Your task to perform on an android device: open wifi settings Image 0: 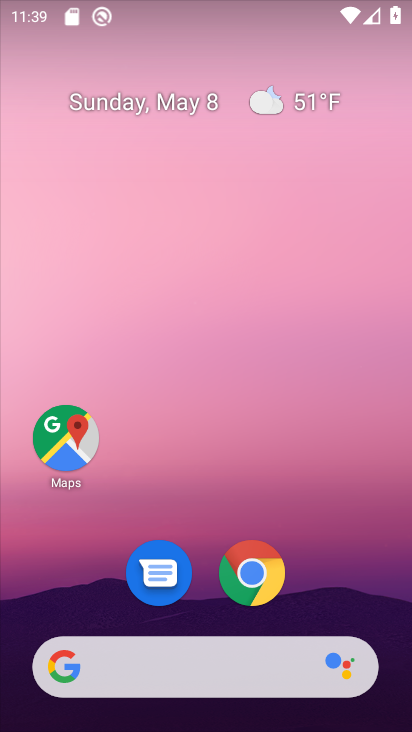
Step 0: drag from (183, 640) to (121, 156)
Your task to perform on an android device: open wifi settings Image 1: 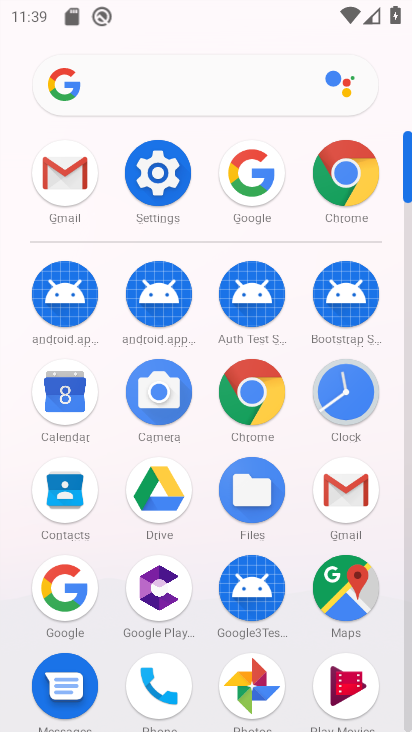
Step 1: click (152, 179)
Your task to perform on an android device: open wifi settings Image 2: 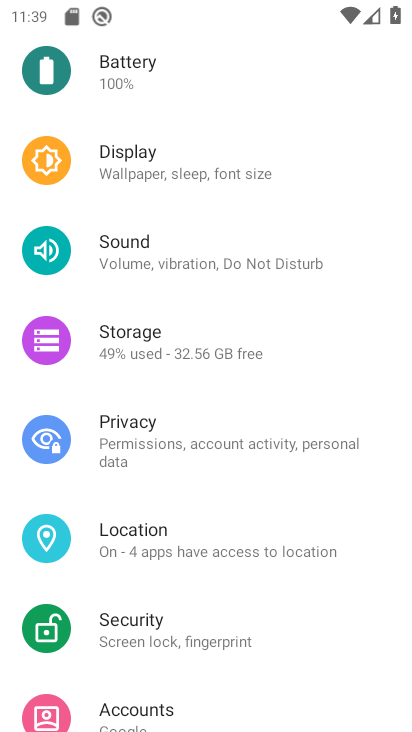
Step 2: drag from (134, 97) to (174, 521)
Your task to perform on an android device: open wifi settings Image 3: 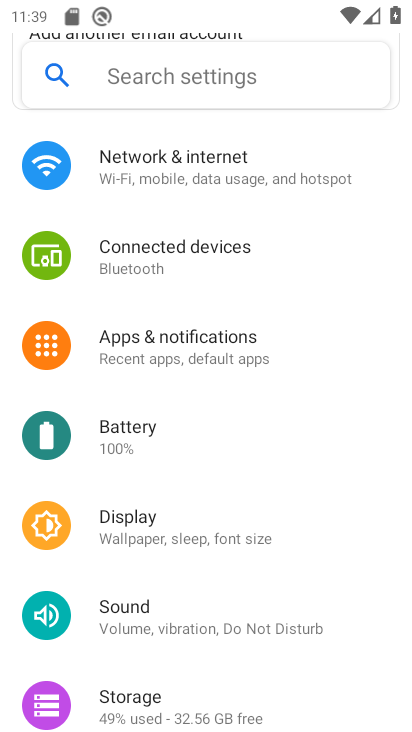
Step 3: click (161, 173)
Your task to perform on an android device: open wifi settings Image 4: 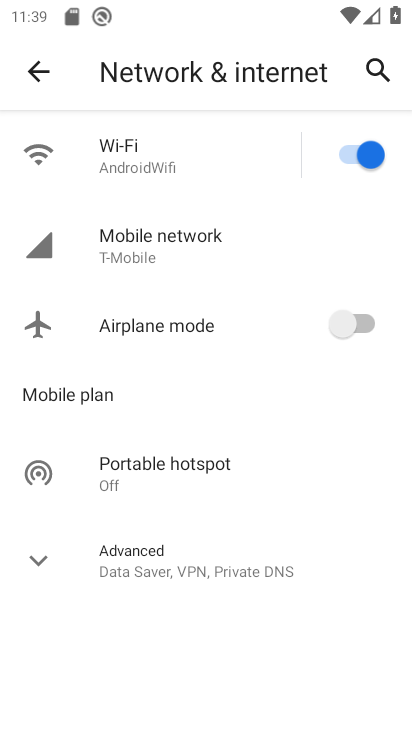
Step 4: click (143, 160)
Your task to perform on an android device: open wifi settings Image 5: 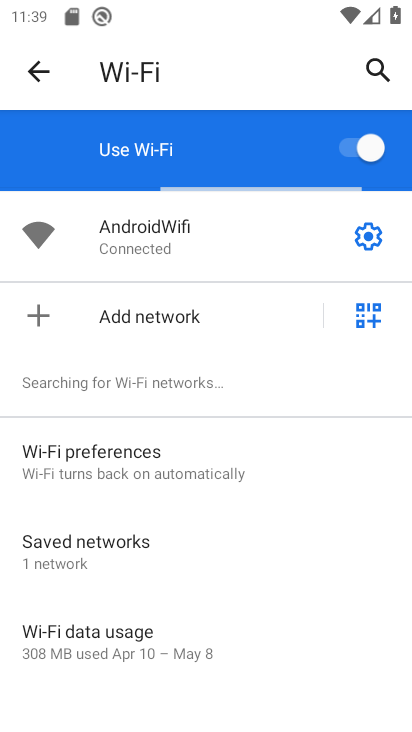
Step 5: click (358, 240)
Your task to perform on an android device: open wifi settings Image 6: 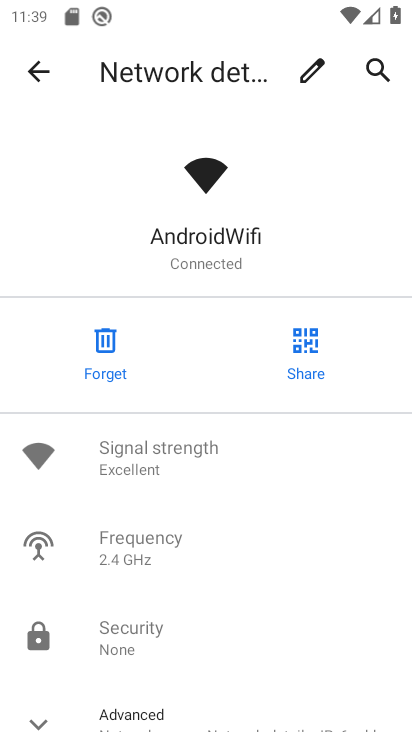
Step 6: drag from (156, 681) to (131, 246)
Your task to perform on an android device: open wifi settings Image 7: 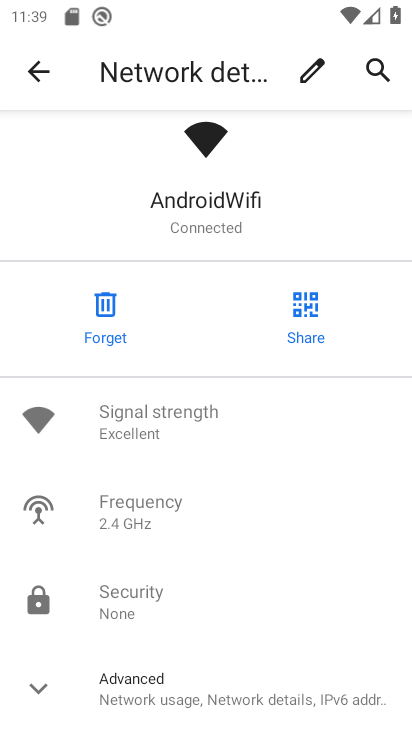
Step 7: click (98, 685)
Your task to perform on an android device: open wifi settings Image 8: 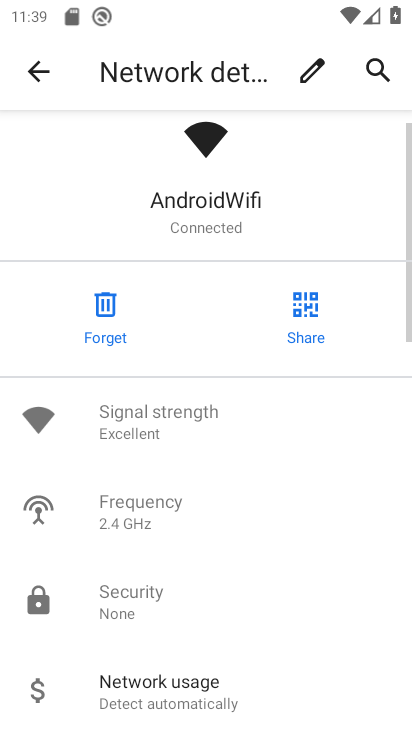
Step 8: task complete